Your task to perform on an android device: Check the news Image 0: 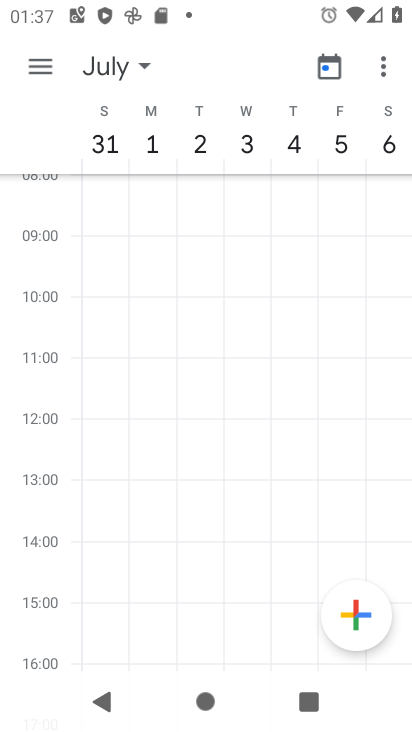
Step 0: press home button
Your task to perform on an android device: Check the news Image 1: 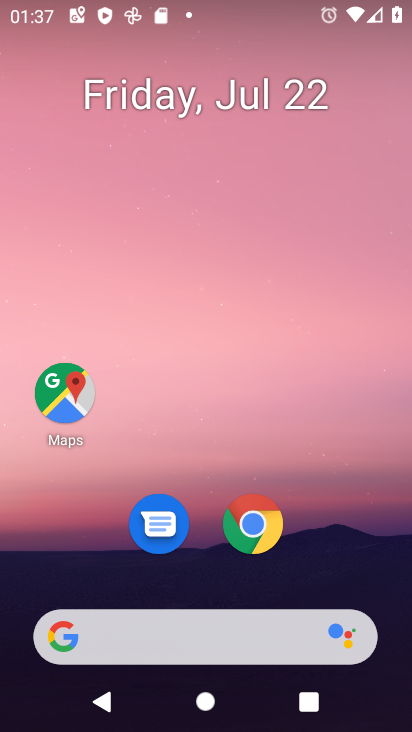
Step 1: click (149, 628)
Your task to perform on an android device: Check the news Image 2: 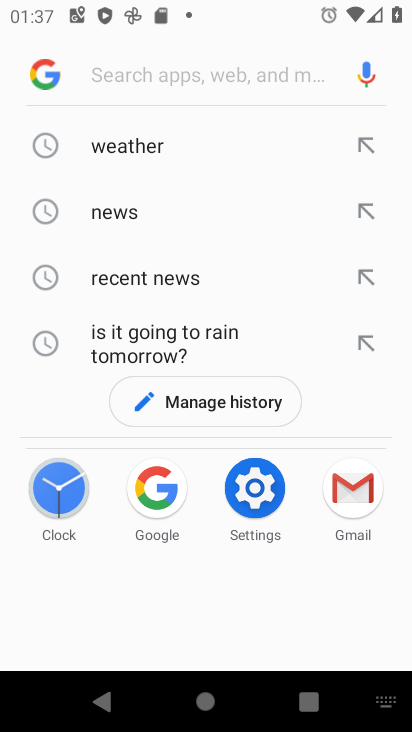
Step 2: click (145, 214)
Your task to perform on an android device: Check the news Image 3: 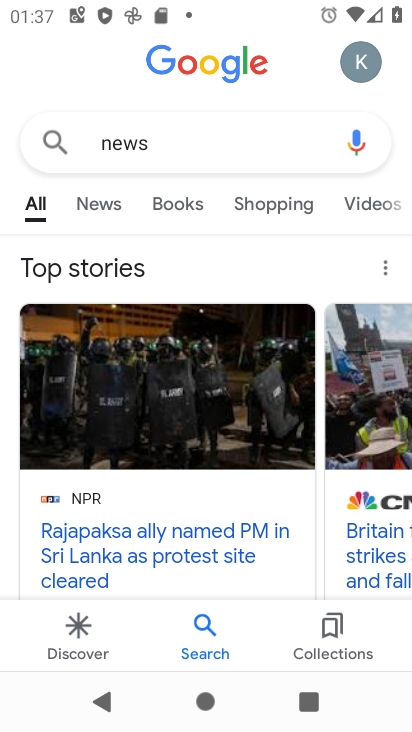
Step 3: click (99, 203)
Your task to perform on an android device: Check the news Image 4: 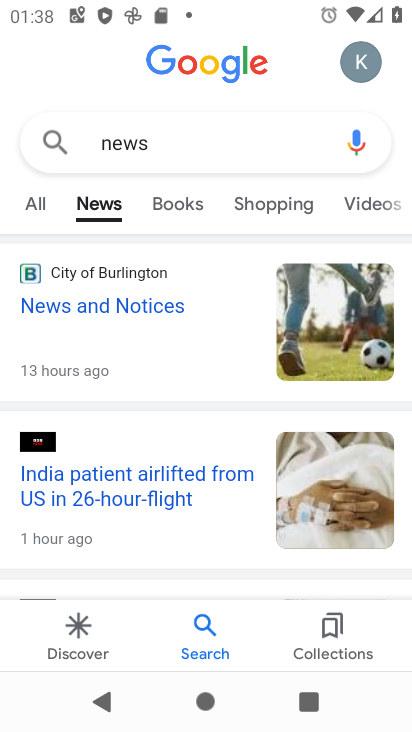
Step 4: task complete